Your task to perform on an android device: all mails in gmail Image 0: 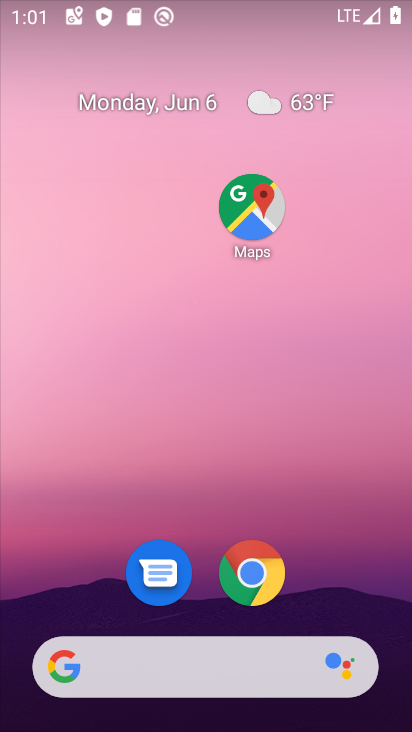
Step 0: drag from (229, 507) to (308, 17)
Your task to perform on an android device: all mails in gmail Image 1: 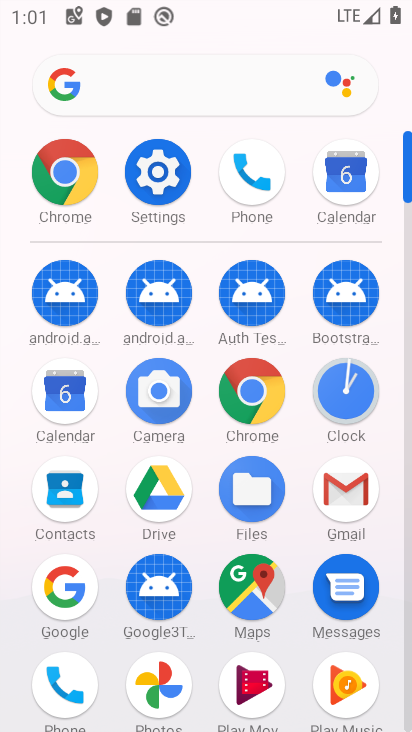
Step 1: click (333, 513)
Your task to perform on an android device: all mails in gmail Image 2: 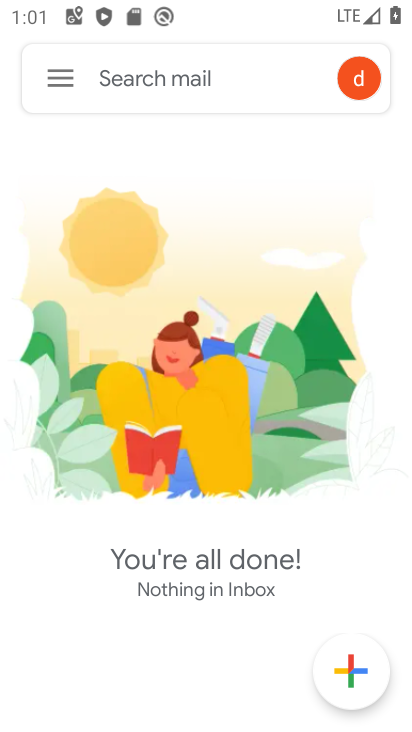
Step 2: click (66, 88)
Your task to perform on an android device: all mails in gmail Image 3: 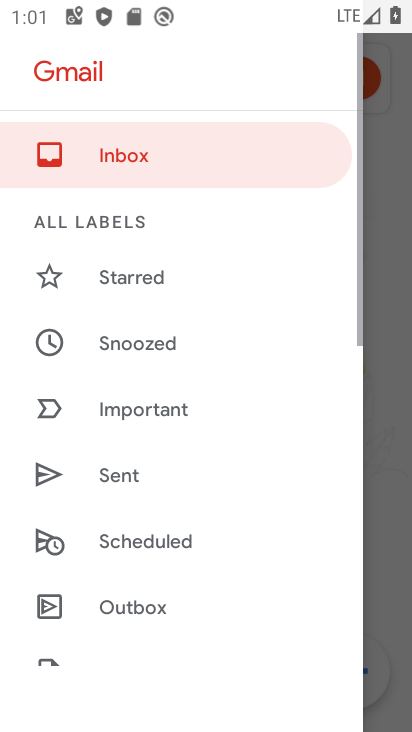
Step 3: drag from (155, 560) to (165, 88)
Your task to perform on an android device: all mails in gmail Image 4: 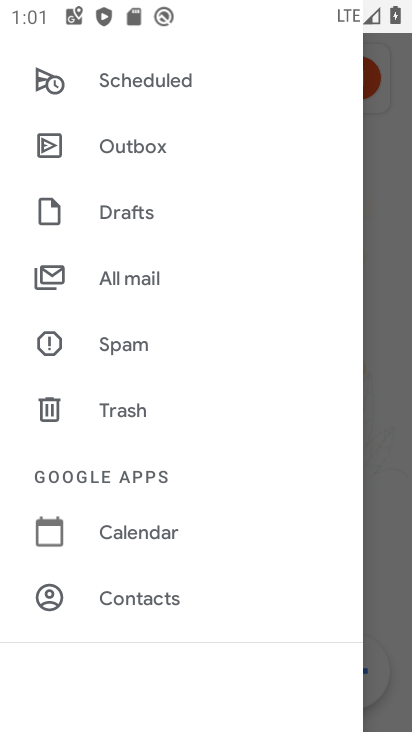
Step 4: click (145, 295)
Your task to perform on an android device: all mails in gmail Image 5: 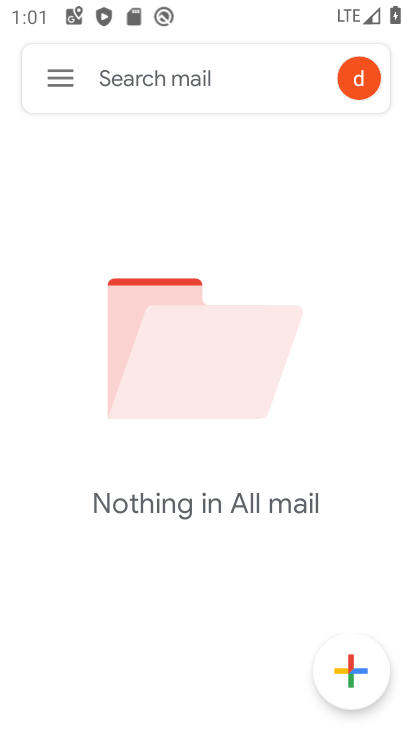
Step 5: task complete